Your task to perform on an android device: open a bookmark in the chrome app Image 0: 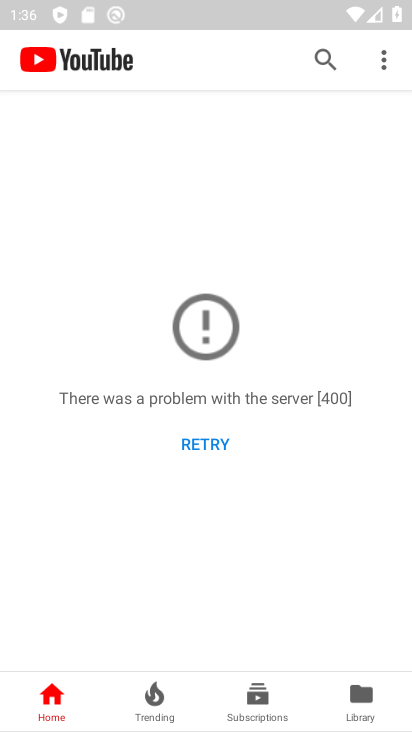
Step 0: press home button
Your task to perform on an android device: open a bookmark in the chrome app Image 1: 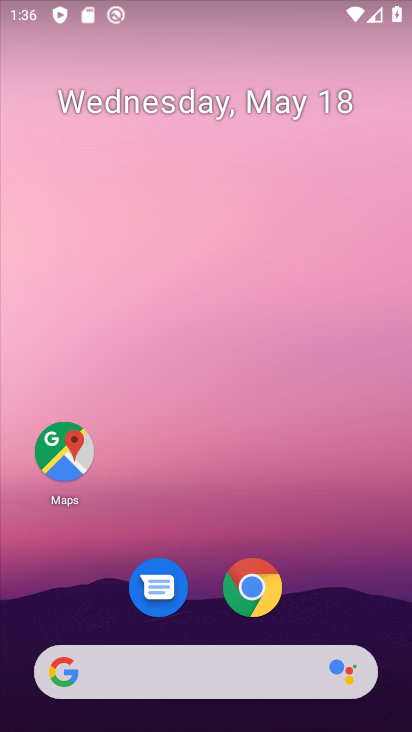
Step 1: click (255, 598)
Your task to perform on an android device: open a bookmark in the chrome app Image 2: 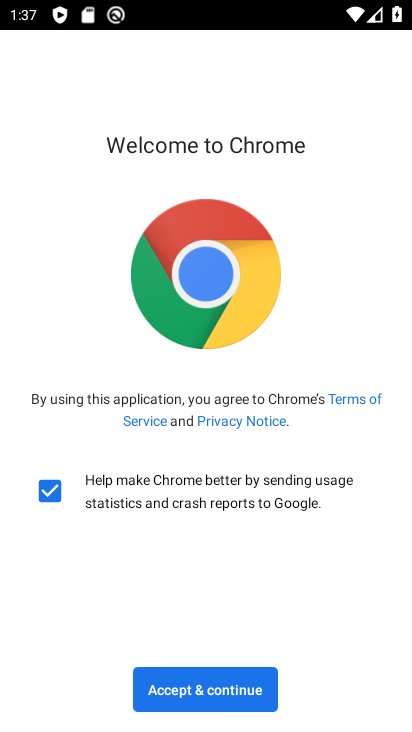
Step 2: click (198, 693)
Your task to perform on an android device: open a bookmark in the chrome app Image 3: 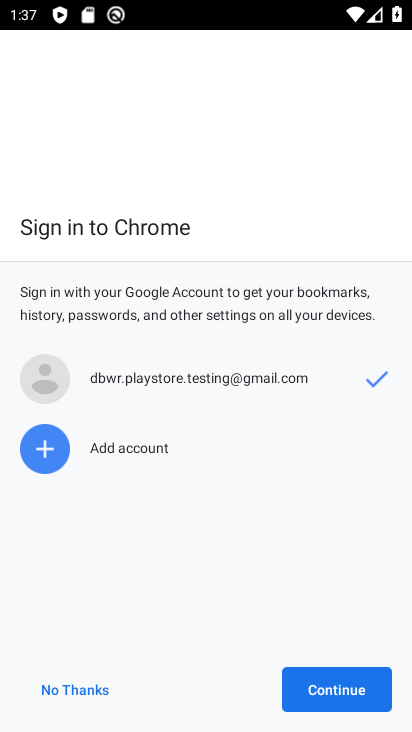
Step 3: click (60, 689)
Your task to perform on an android device: open a bookmark in the chrome app Image 4: 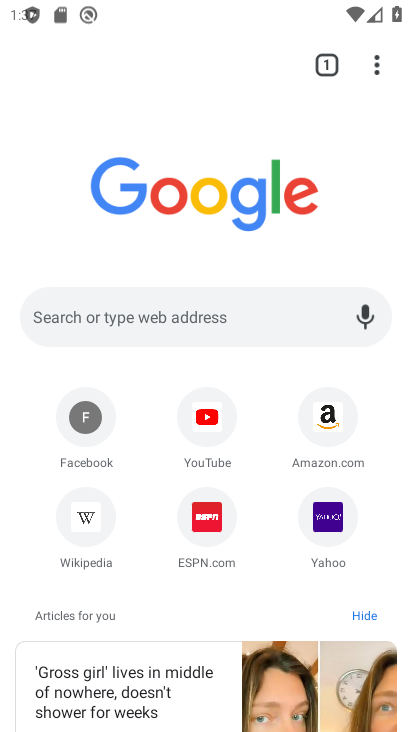
Step 4: click (375, 68)
Your task to perform on an android device: open a bookmark in the chrome app Image 5: 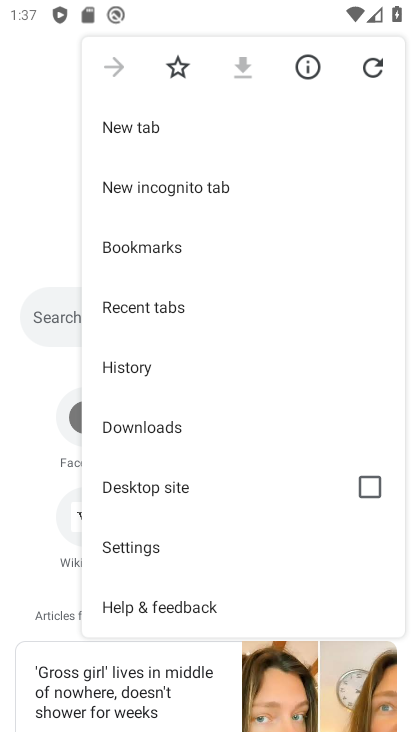
Step 5: click (131, 247)
Your task to perform on an android device: open a bookmark in the chrome app Image 6: 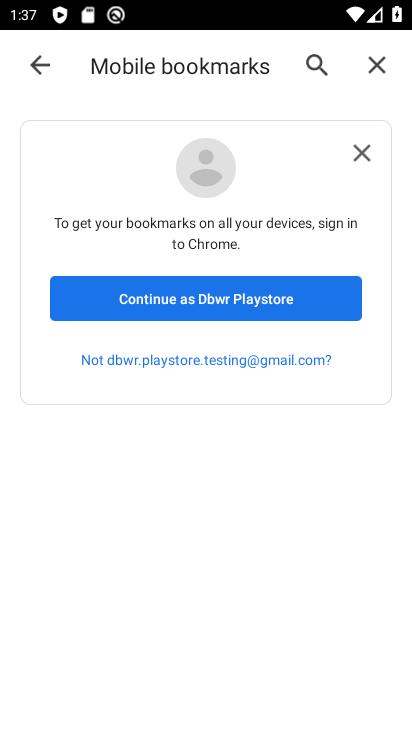
Step 6: click (164, 303)
Your task to perform on an android device: open a bookmark in the chrome app Image 7: 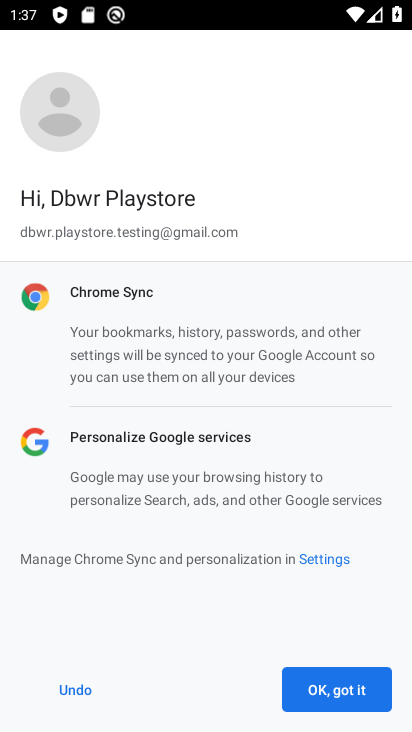
Step 7: click (304, 689)
Your task to perform on an android device: open a bookmark in the chrome app Image 8: 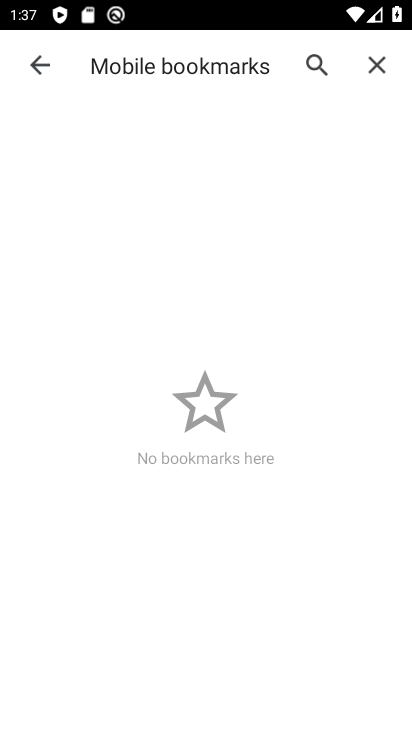
Step 8: task complete